Your task to perform on an android device: set default search engine in the chrome app Image 0: 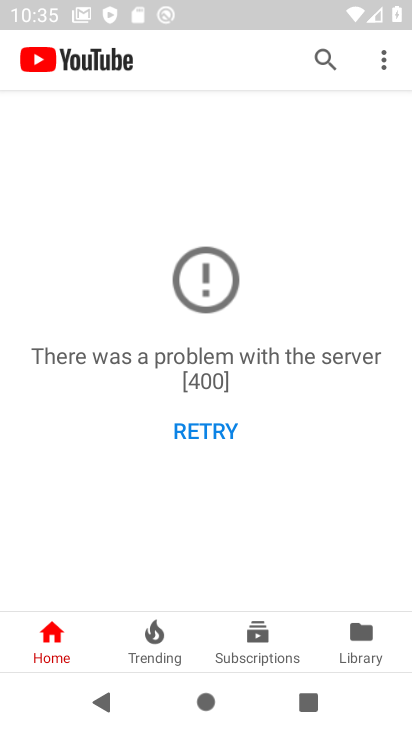
Step 0: press back button
Your task to perform on an android device: set default search engine in the chrome app Image 1: 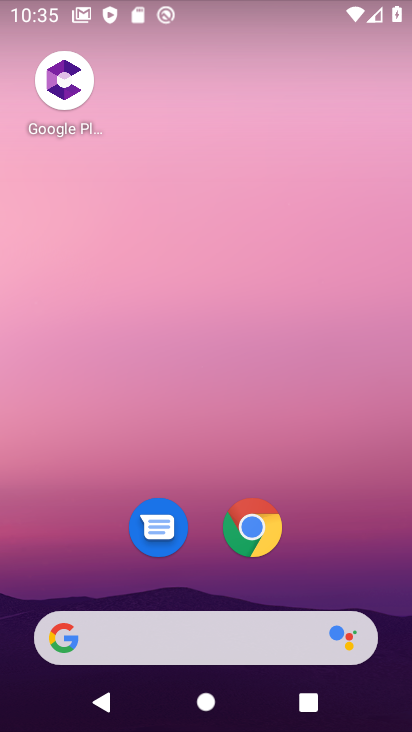
Step 1: click (251, 516)
Your task to perform on an android device: set default search engine in the chrome app Image 2: 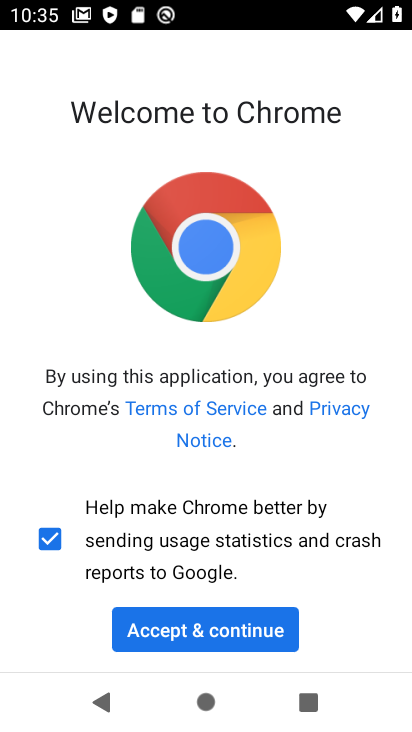
Step 2: click (247, 626)
Your task to perform on an android device: set default search engine in the chrome app Image 3: 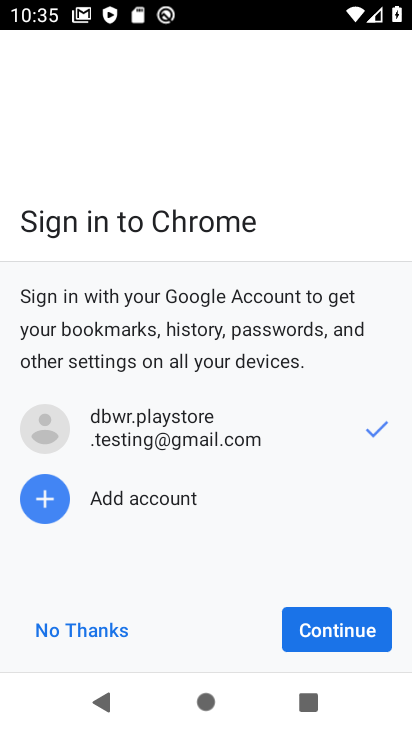
Step 3: click (328, 613)
Your task to perform on an android device: set default search engine in the chrome app Image 4: 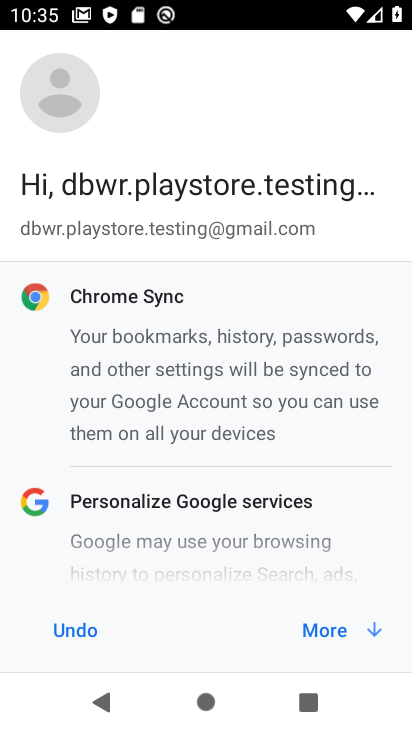
Step 4: click (342, 625)
Your task to perform on an android device: set default search engine in the chrome app Image 5: 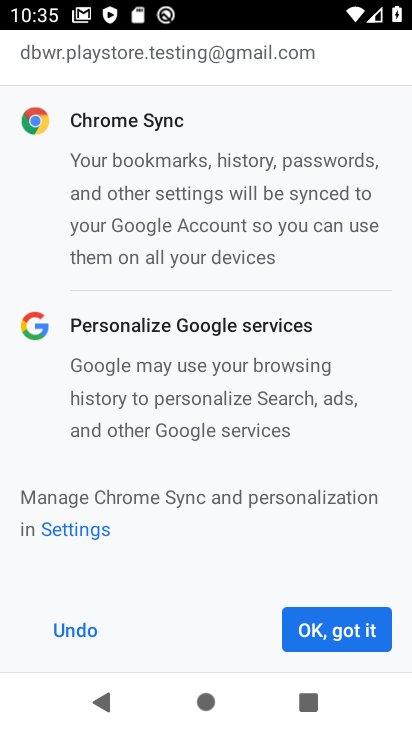
Step 5: click (343, 625)
Your task to perform on an android device: set default search engine in the chrome app Image 6: 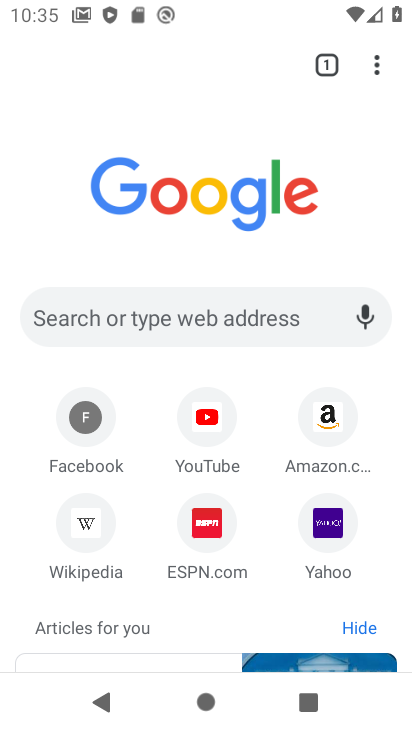
Step 6: click (386, 62)
Your task to perform on an android device: set default search engine in the chrome app Image 7: 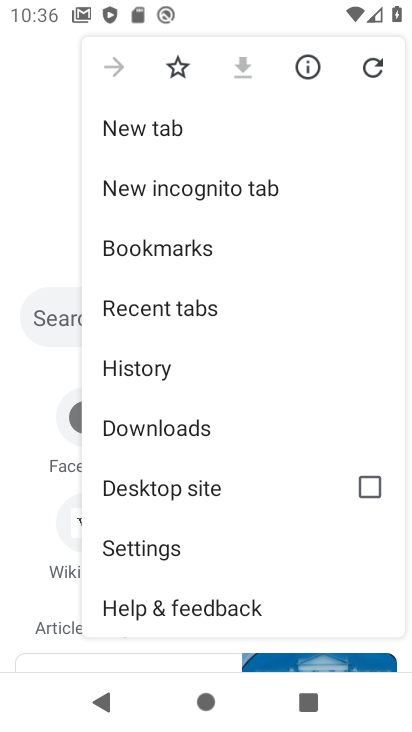
Step 7: click (184, 553)
Your task to perform on an android device: set default search engine in the chrome app Image 8: 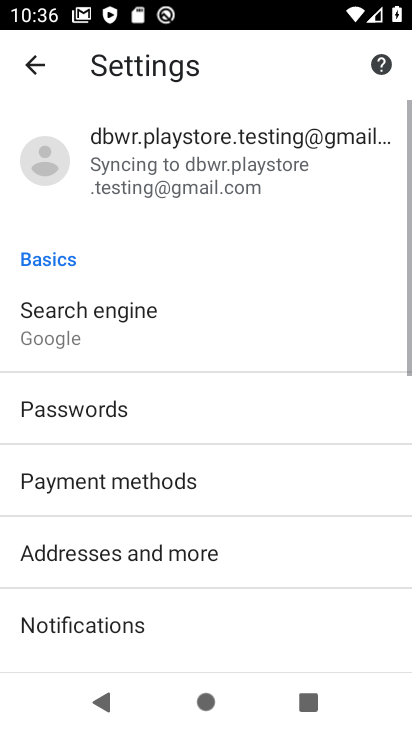
Step 8: click (143, 327)
Your task to perform on an android device: set default search engine in the chrome app Image 9: 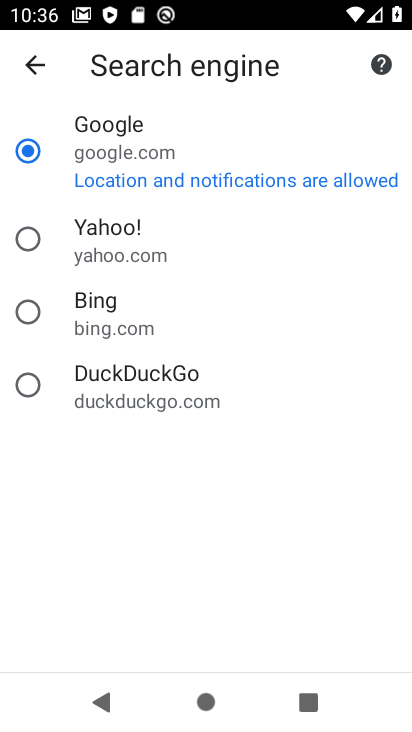
Step 9: click (112, 328)
Your task to perform on an android device: set default search engine in the chrome app Image 10: 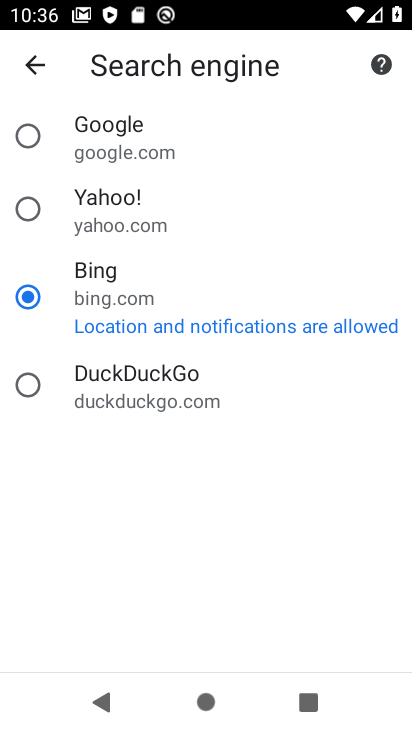
Step 10: task complete